Your task to perform on an android device: change the clock display to show seconds Image 0: 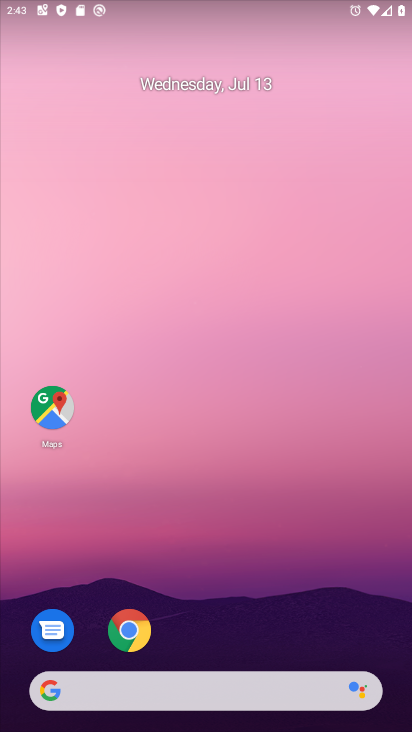
Step 0: drag from (346, 611) to (381, 91)
Your task to perform on an android device: change the clock display to show seconds Image 1: 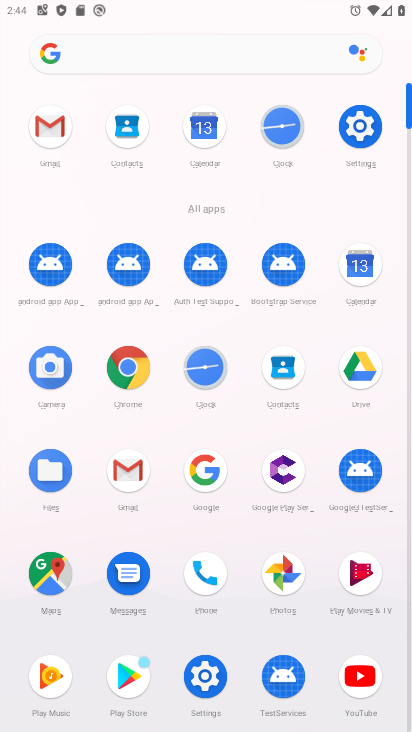
Step 1: click (213, 374)
Your task to perform on an android device: change the clock display to show seconds Image 2: 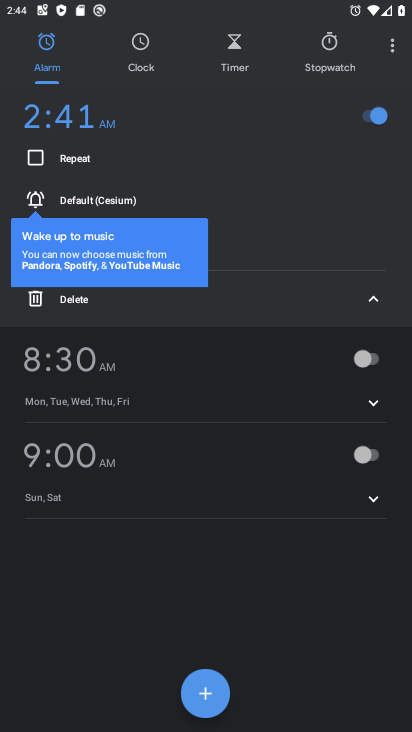
Step 2: click (391, 50)
Your task to perform on an android device: change the clock display to show seconds Image 3: 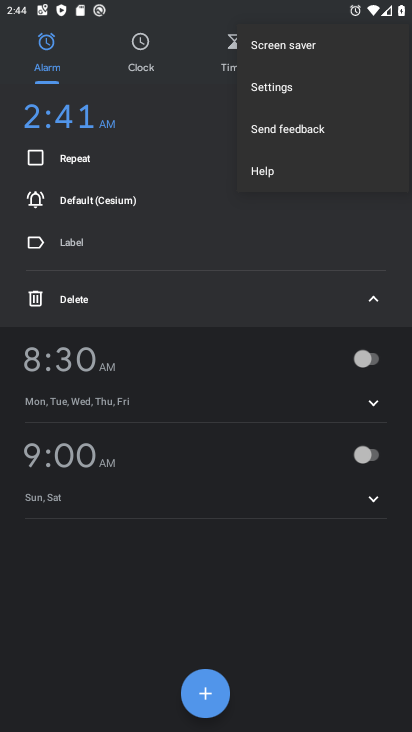
Step 3: click (326, 101)
Your task to perform on an android device: change the clock display to show seconds Image 4: 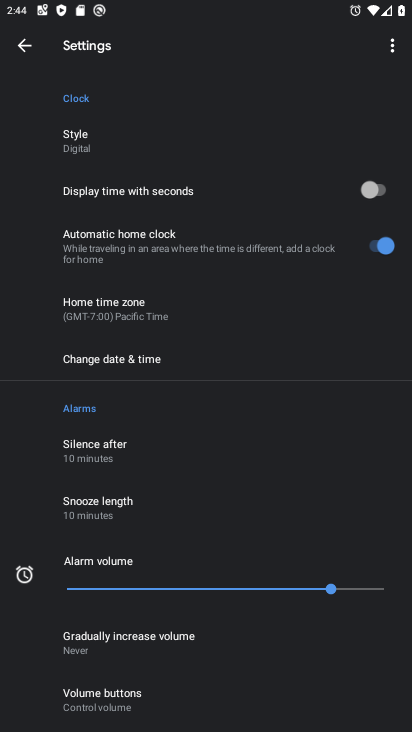
Step 4: drag from (321, 394) to (324, 284)
Your task to perform on an android device: change the clock display to show seconds Image 5: 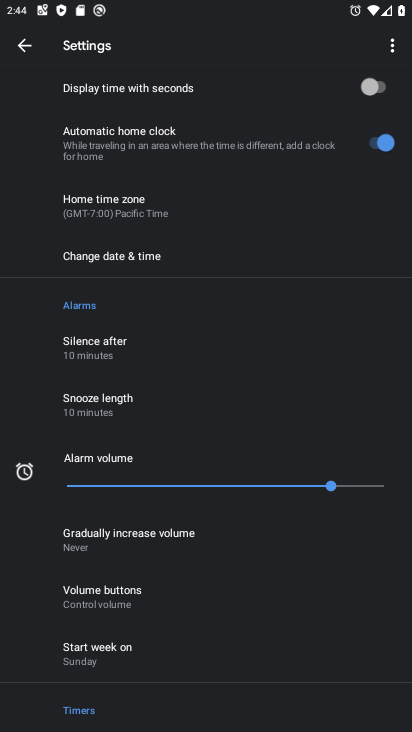
Step 5: drag from (330, 428) to (326, 192)
Your task to perform on an android device: change the clock display to show seconds Image 6: 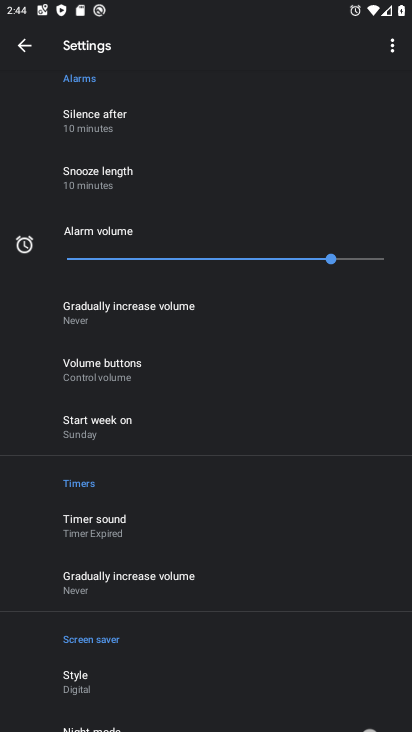
Step 6: drag from (314, 464) to (316, 314)
Your task to perform on an android device: change the clock display to show seconds Image 7: 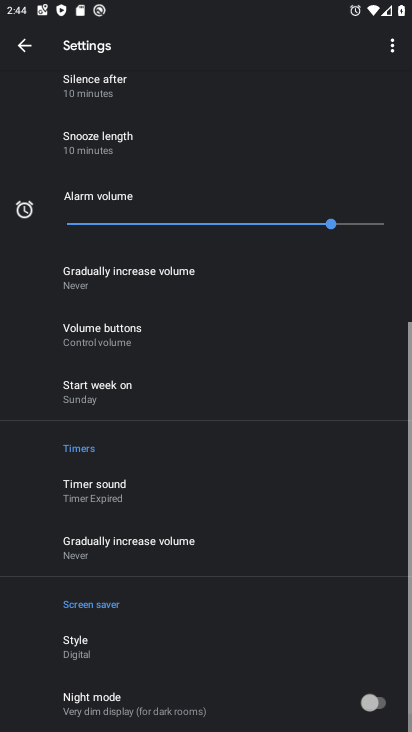
Step 7: drag from (317, 297) to (317, 382)
Your task to perform on an android device: change the clock display to show seconds Image 8: 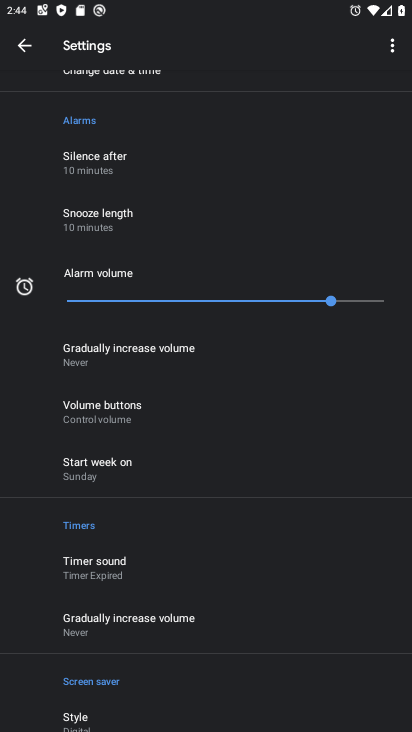
Step 8: drag from (324, 347) to (325, 458)
Your task to perform on an android device: change the clock display to show seconds Image 9: 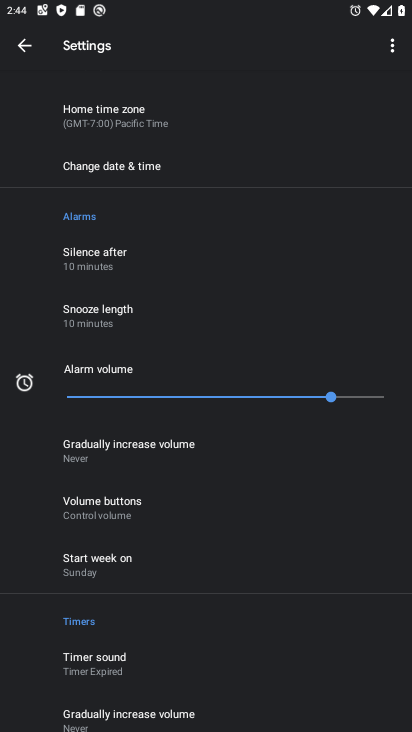
Step 9: drag from (320, 312) to (320, 435)
Your task to perform on an android device: change the clock display to show seconds Image 10: 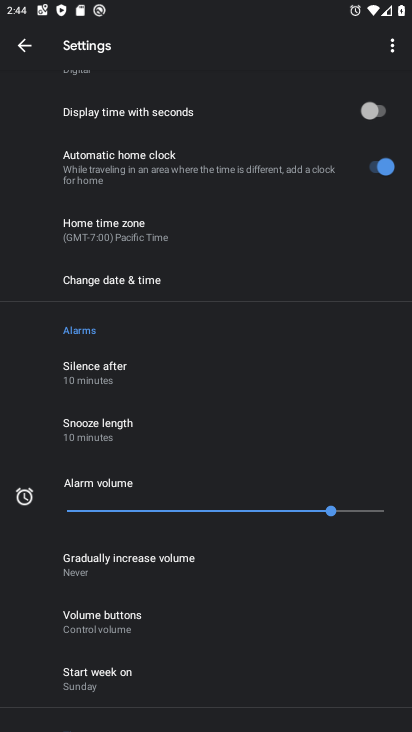
Step 10: drag from (319, 332) to (313, 450)
Your task to perform on an android device: change the clock display to show seconds Image 11: 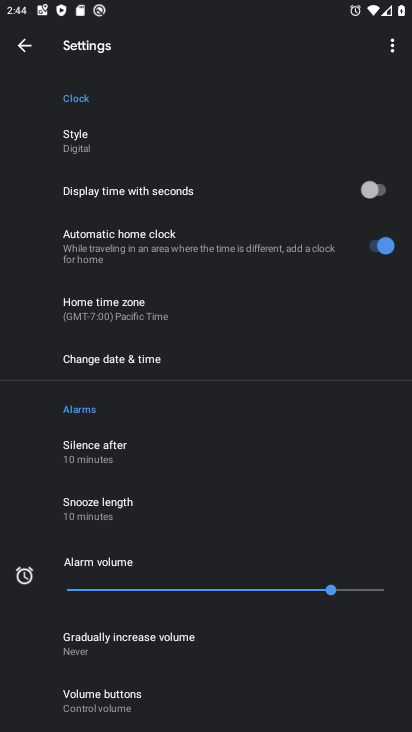
Step 11: drag from (288, 288) to (290, 412)
Your task to perform on an android device: change the clock display to show seconds Image 12: 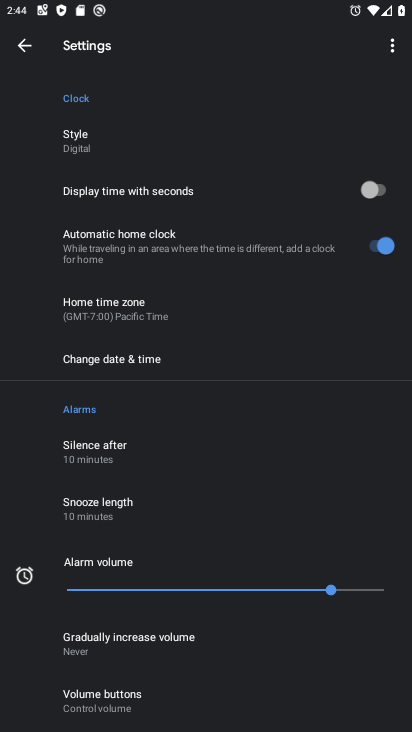
Step 12: click (370, 199)
Your task to perform on an android device: change the clock display to show seconds Image 13: 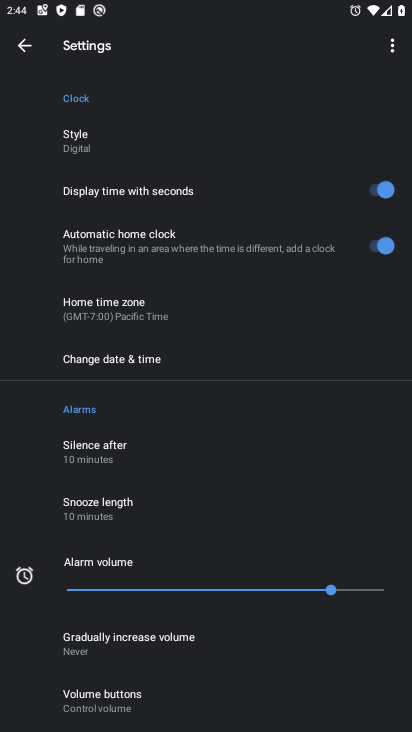
Step 13: task complete